Your task to perform on an android device: open chrome privacy settings Image 0: 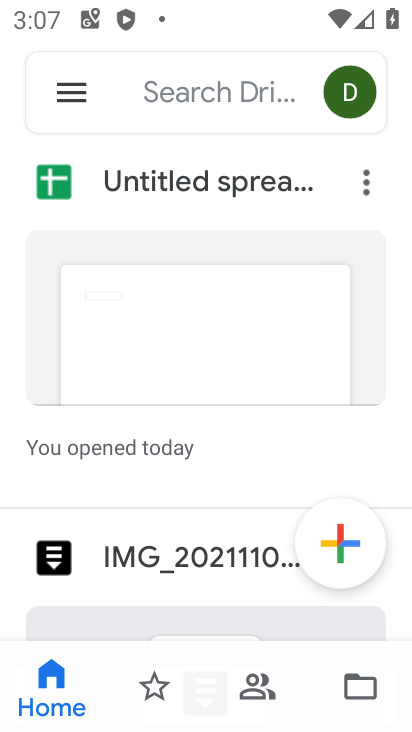
Step 0: press home button
Your task to perform on an android device: open chrome privacy settings Image 1: 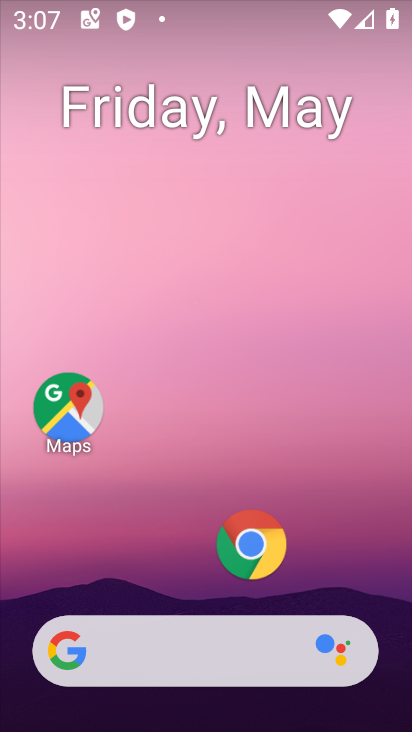
Step 1: click (211, 572)
Your task to perform on an android device: open chrome privacy settings Image 2: 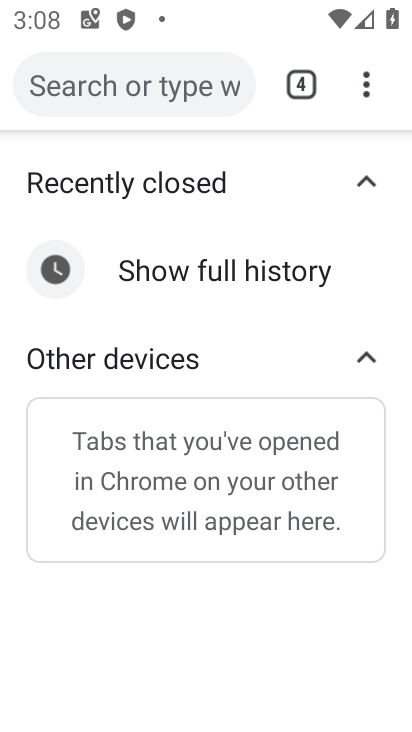
Step 2: drag from (359, 86) to (122, 587)
Your task to perform on an android device: open chrome privacy settings Image 3: 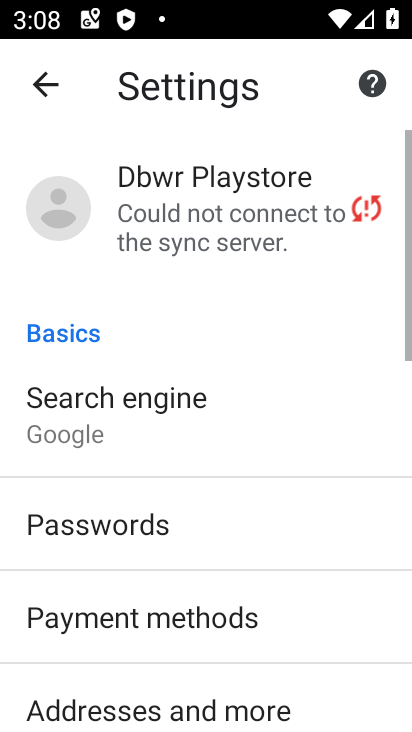
Step 3: drag from (153, 609) to (190, 266)
Your task to perform on an android device: open chrome privacy settings Image 4: 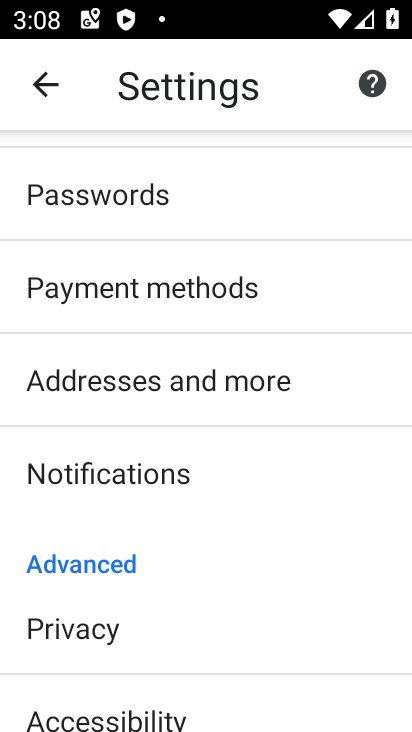
Step 4: click (133, 627)
Your task to perform on an android device: open chrome privacy settings Image 5: 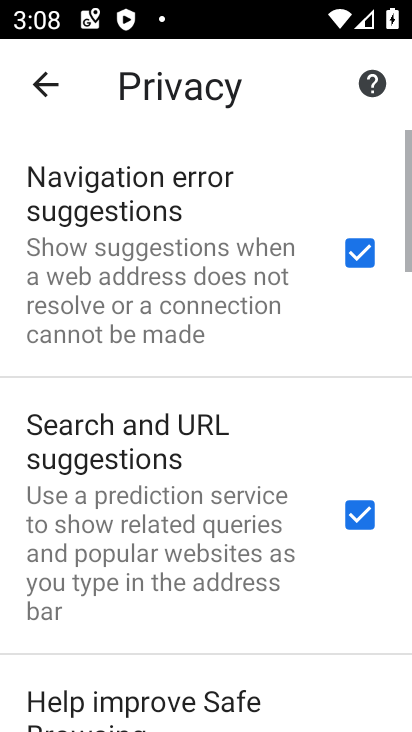
Step 5: task complete